Your task to perform on an android device: open a new tab in the chrome app Image 0: 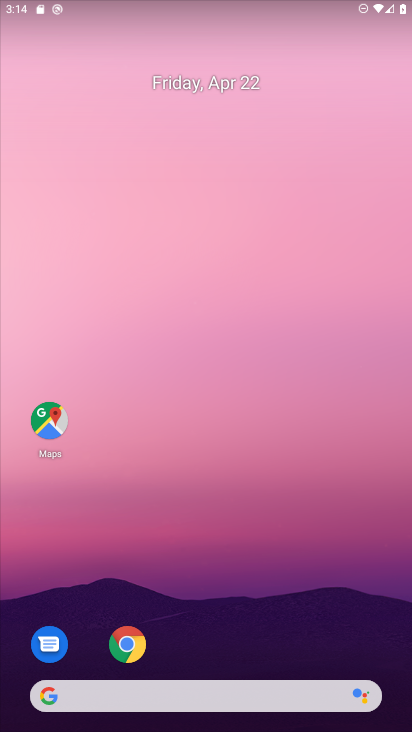
Step 0: drag from (264, 658) to (275, 161)
Your task to perform on an android device: open a new tab in the chrome app Image 1: 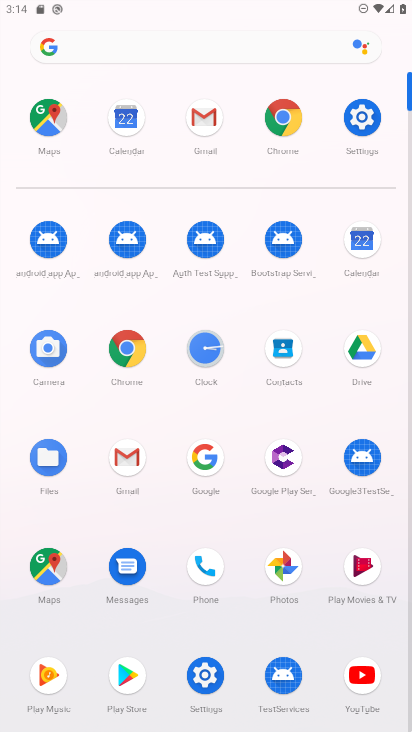
Step 1: click (123, 340)
Your task to perform on an android device: open a new tab in the chrome app Image 2: 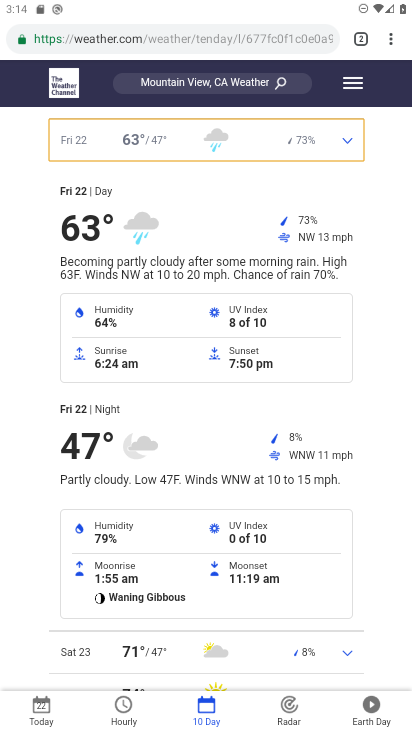
Step 2: task complete